Your task to perform on an android device: Is it going to rain this weekend? Image 0: 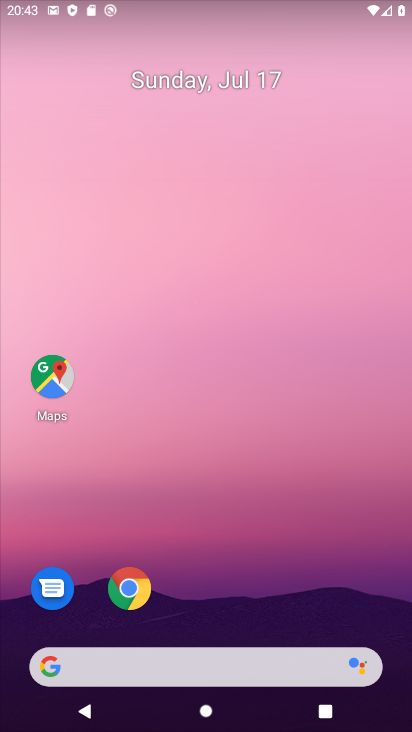
Step 0: drag from (292, 613) to (363, 9)
Your task to perform on an android device: Is it going to rain this weekend? Image 1: 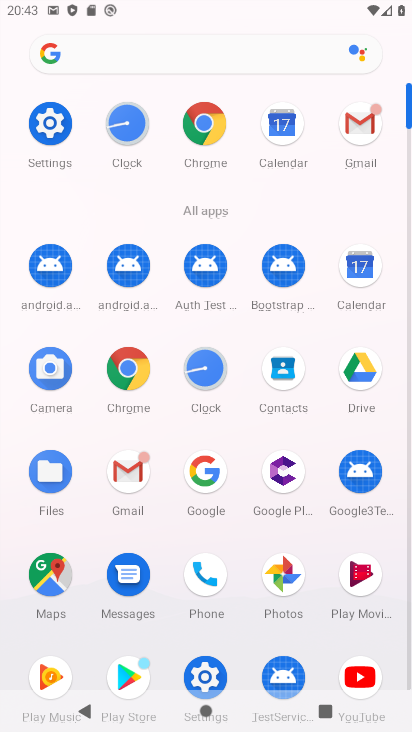
Step 1: click (203, 116)
Your task to perform on an android device: Is it going to rain this weekend? Image 2: 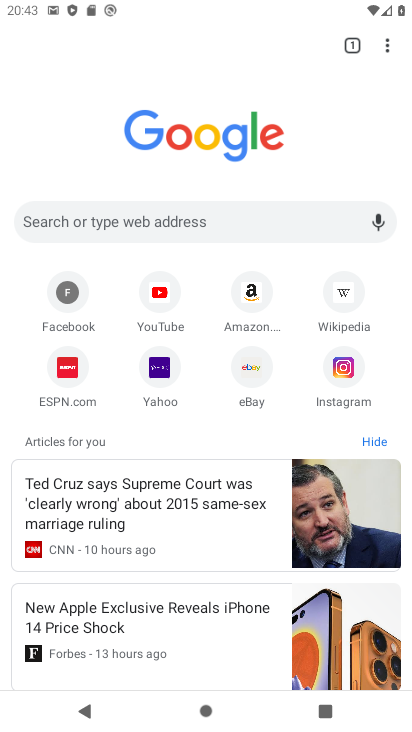
Step 2: click (211, 232)
Your task to perform on an android device: Is it going to rain this weekend? Image 3: 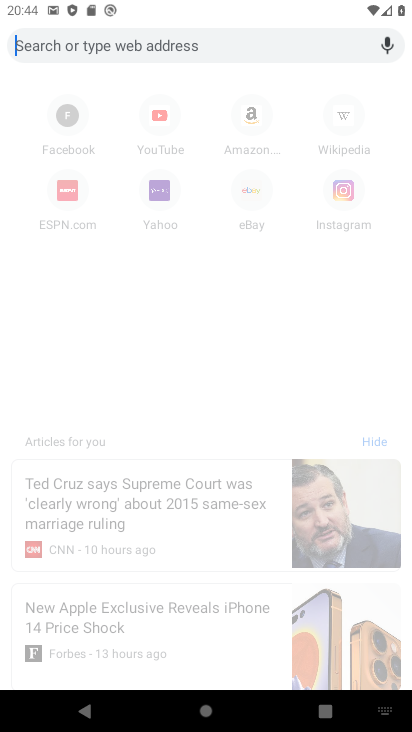
Step 3: type "Is it going to rain weekend?"
Your task to perform on an android device: Is it going to rain this weekend? Image 4: 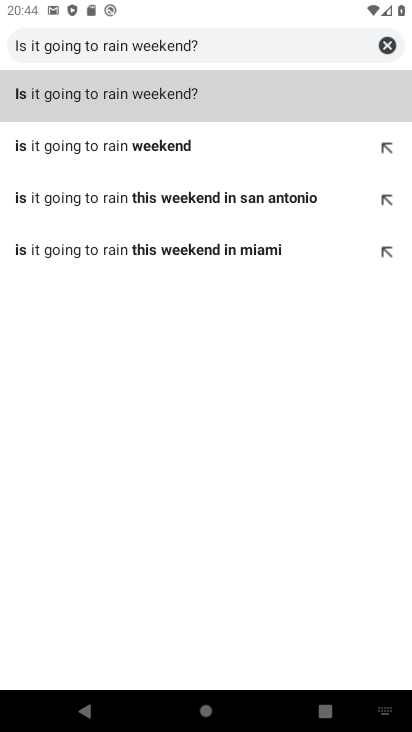
Step 4: click (83, 103)
Your task to perform on an android device: Is it going to rain this weekend? Image 5: 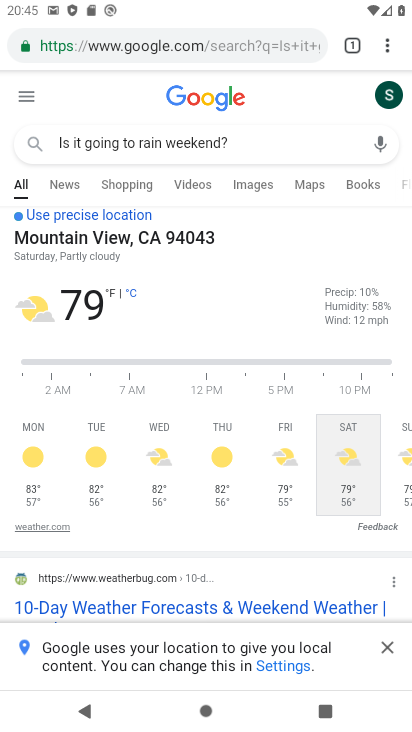
Step 5: task complete